Your task to perform on an android device: Open Maps and search for coffee Image 0: 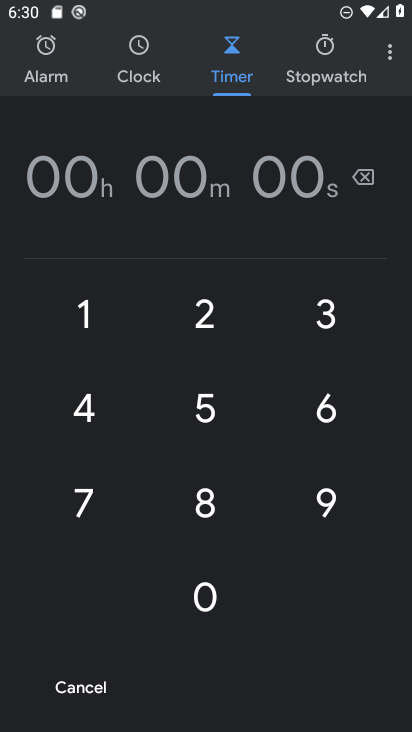
Step 0: press home button
Your task to perform on an android device: Open Maps and search for coffee Image 1: 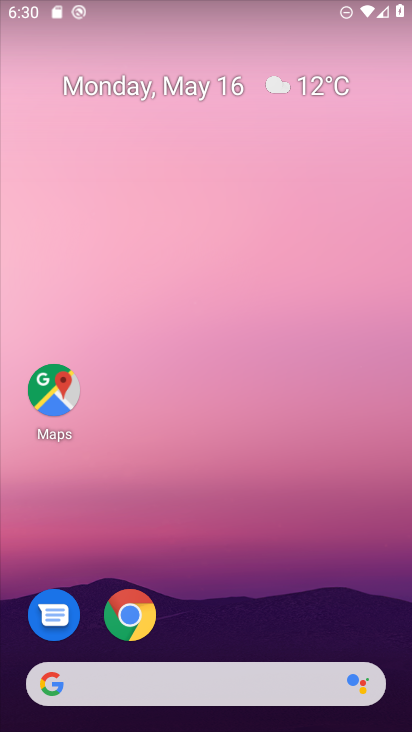
Step 1: click (36, 397)
Your task to perform on an android device: Open Maps and search for coffee Image 2: 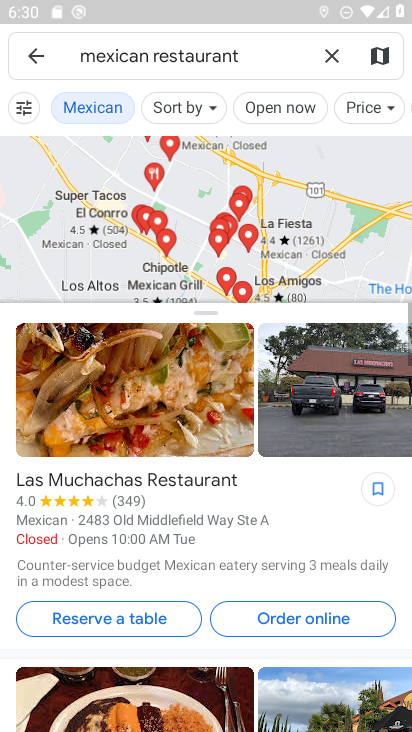
Step 2: click (333, 59)
Your task to perform on an android device: Open Maps and search for coffee Image 3: 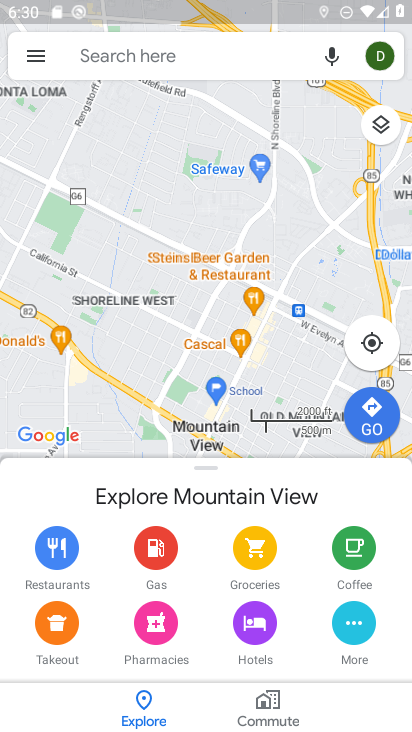
Step 3: click (190, 50)
Your task to perform on an android device: Open Maps and search for coffee Image 4: 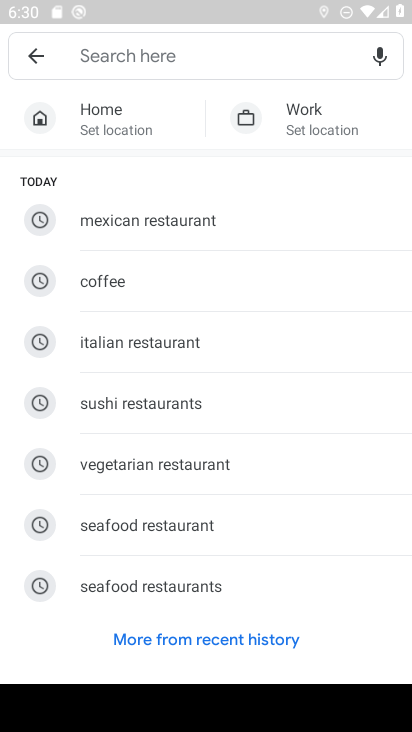
Step 4: click (98, 290)
Your task to perform on an android device: Open Maps and search for coffee Image 5: 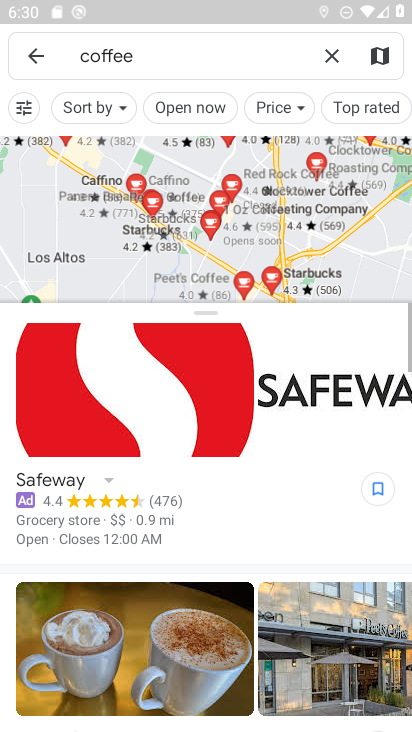
Step 5: task complete